Your task to perform on an android device: Search for Mexican restaurants on Maps Image 0: 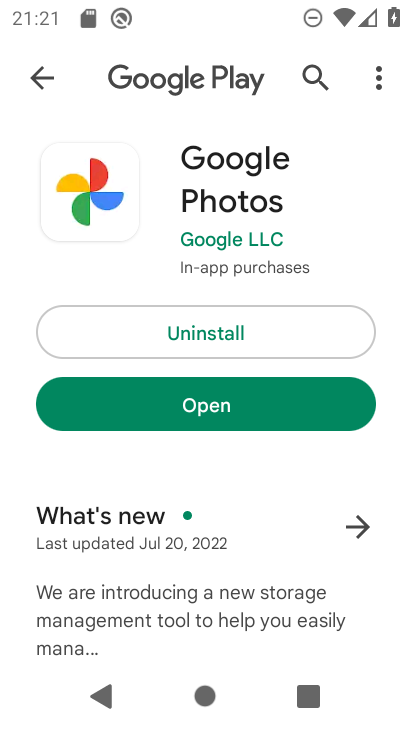
Step 0: press home button
Your task to perform on an android device: Search for Mexican restaurants on Maps Image 1: 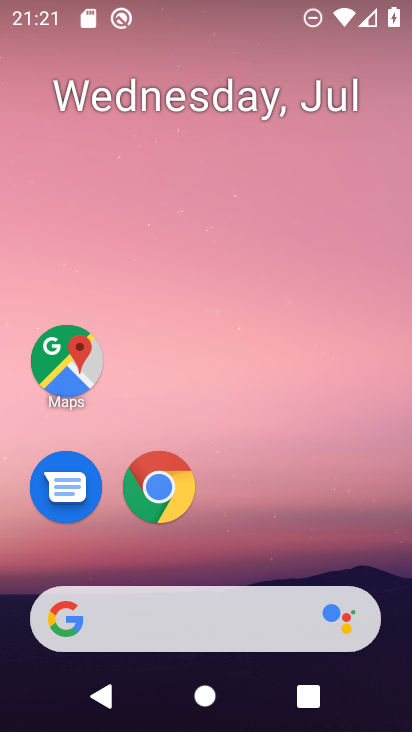
Step 1: drag from (360, 491) to (362, 89)
Your task to perform on an android device: Search for Mexican restaurants on Maps Image 2: 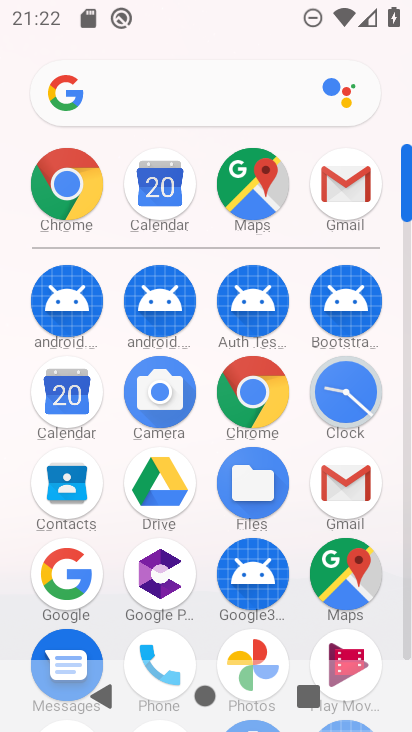
Step 2: click (268, 191)
Your task to perform on an android device: Search for Mexican restaurants on Maps Image 3: 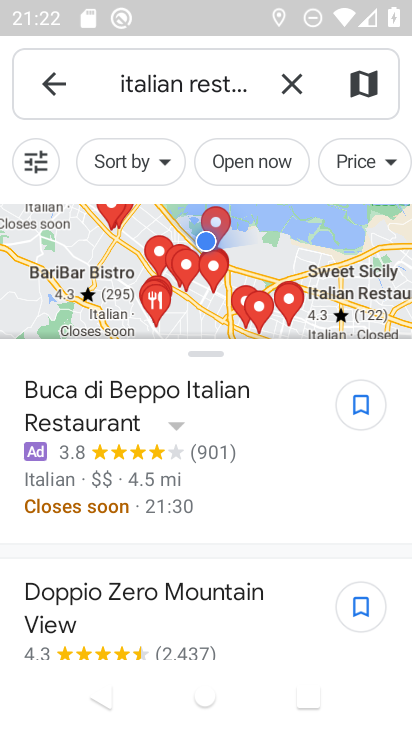
Step 3: press back button
Your task to perform on an android device: Search for Mexican restaurants on Maps Image 4: 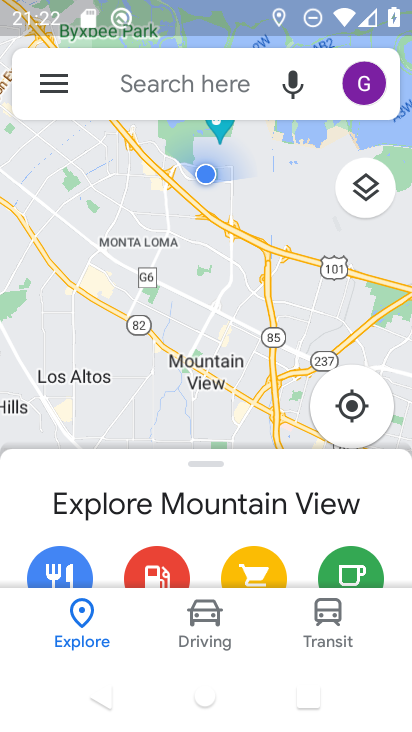
Step 4: click (231, 93)
Your task to perform on an android device: Search for Mexican restaurants on Maps Image 5: 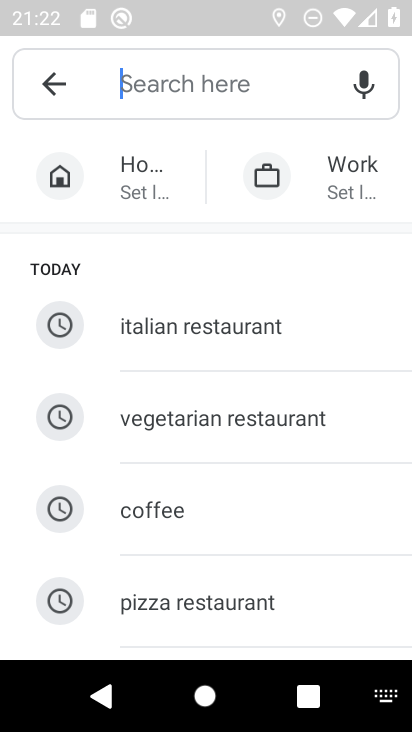
Step 5: type "mixcian restaurants"
Your task to perform on an android device: Search for Mexican restaurants on Maps Image 6: 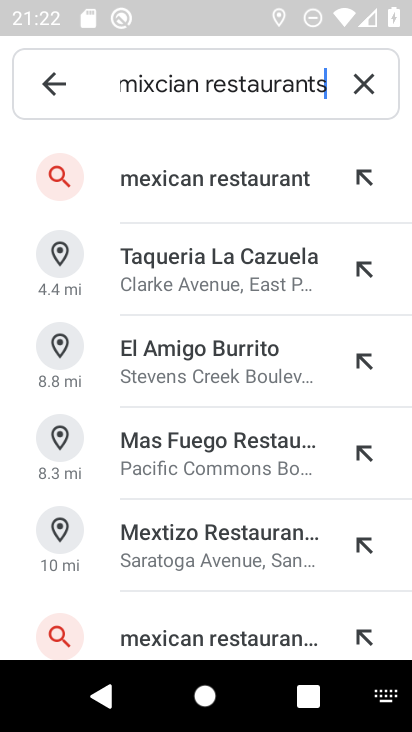
Step 6: click (360, 199)
Your task to perform on an android device: Search for Mexican restaurants on Maps Image 7: 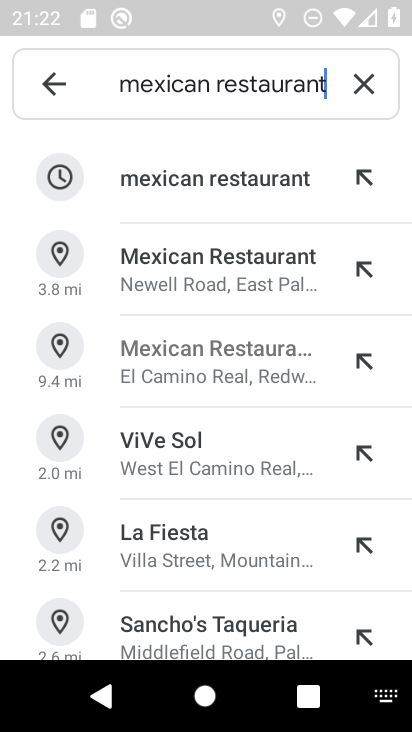
Step 7: click (271, 193)
Your task to perform on an android device: Search for Mexican restaurants on Maps Image 8: 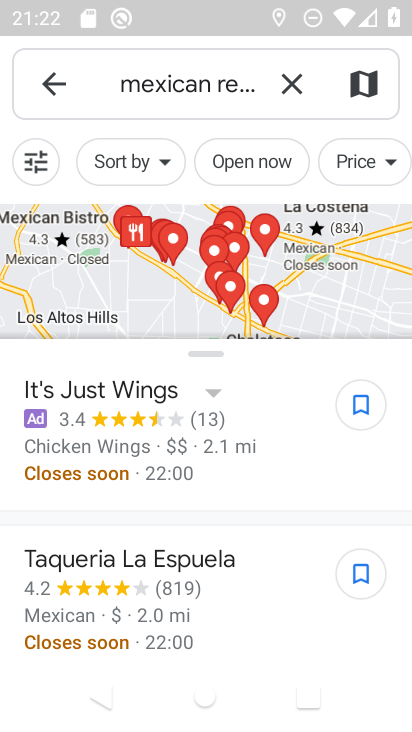
Step 8: task complete